Your task to perform on an android device: Go to privacy settings Image 0: 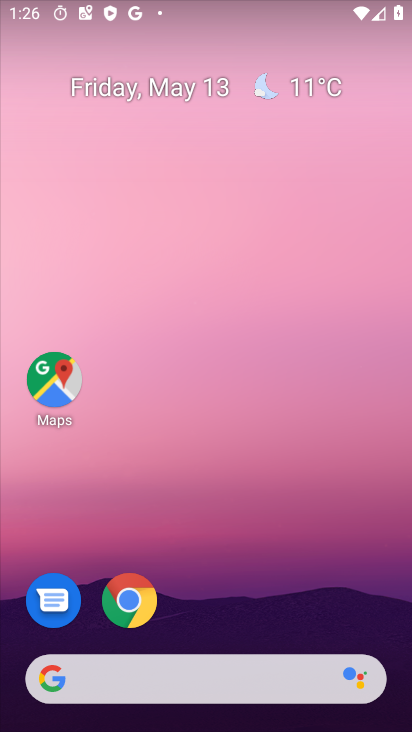
Step 0: click (343, 217)
Your task to perform on an android device: Go to privacy settings Image 1: 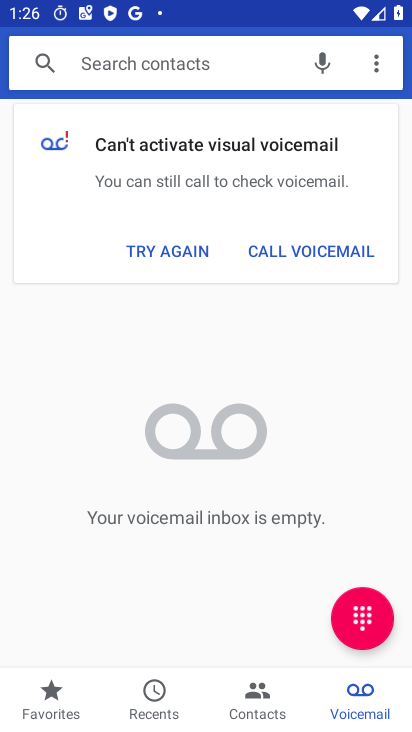
Step 1: press home button
Your task to perform on an android device: Go to privacy settings Image 2: 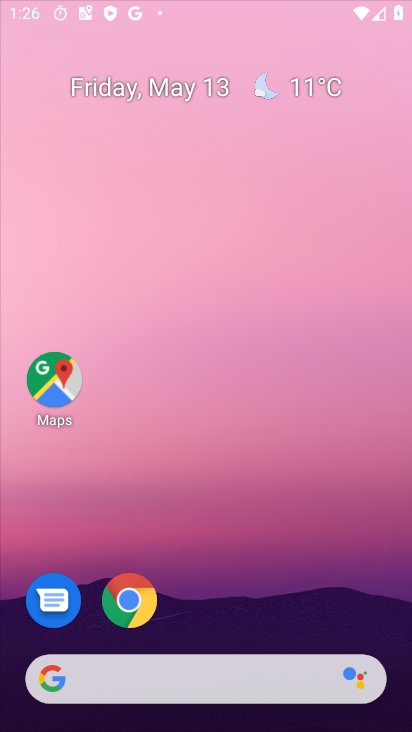
Step 2: drag from (235, 534) to (354, 1)
Your task to perform on an android device: Go to privacy settings Image 3: 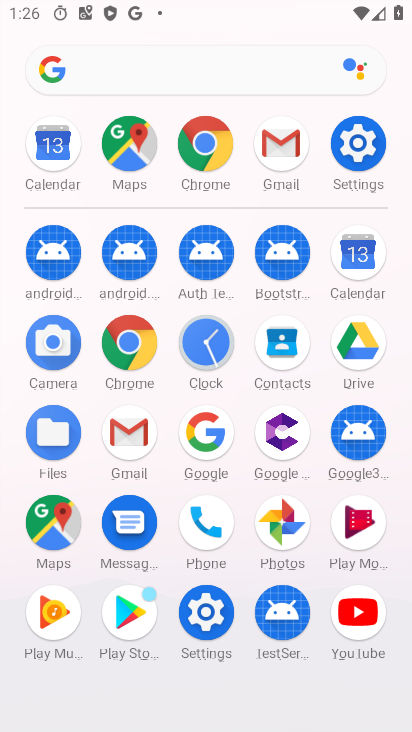
Step 3: click (352, 154)
Your task to perform on an android device: Go to privacy settings Image 4: 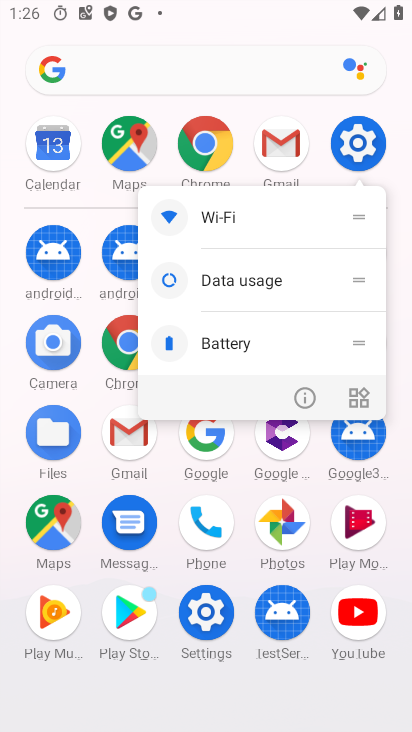
Step 4: click (305, 387)
Your task to perform on an android device: Go to privacy settings Image 5: 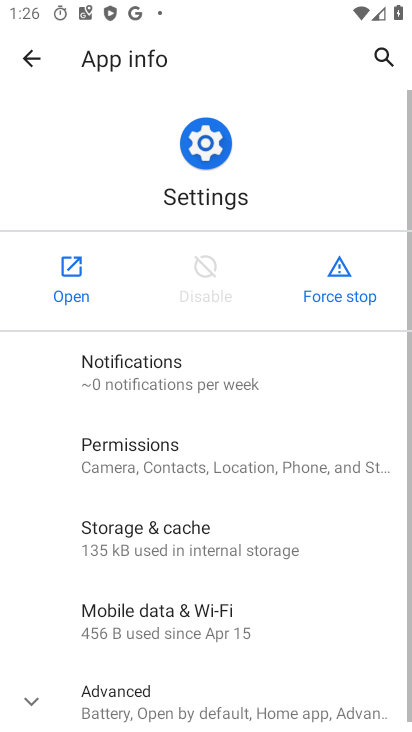
Step 5: click (65, 270)
Your task to perform on an android device: Go to privacy settings Image 6: 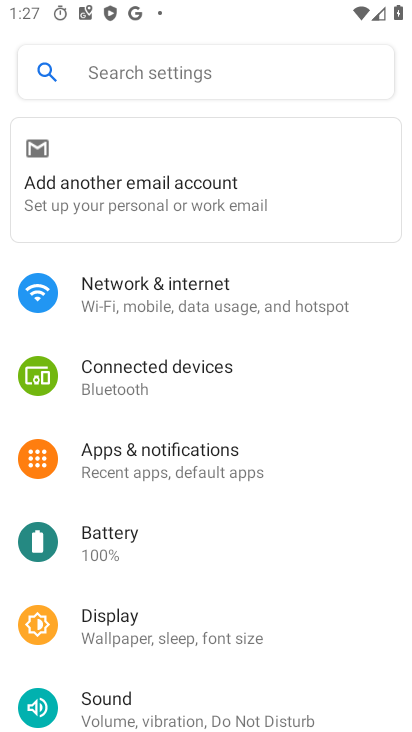
Step 6: drag from (203, 600) to (306, 176)
Your task to perform on an android device: Go to privacy settings Image 7: 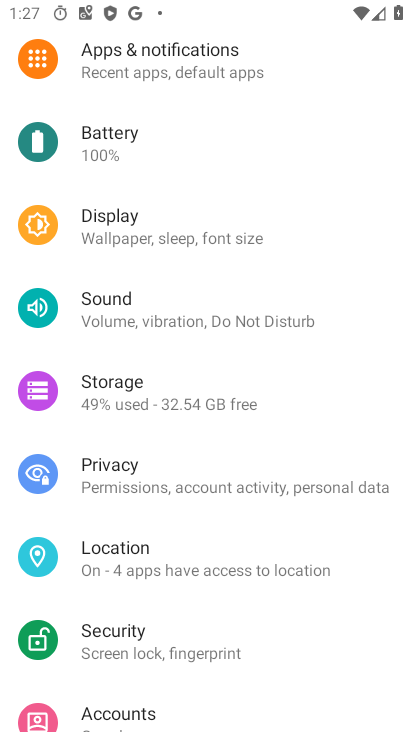
Step 7: click (116, 471)
Your task to perform on an android device: Go to privacy settings Image 8: 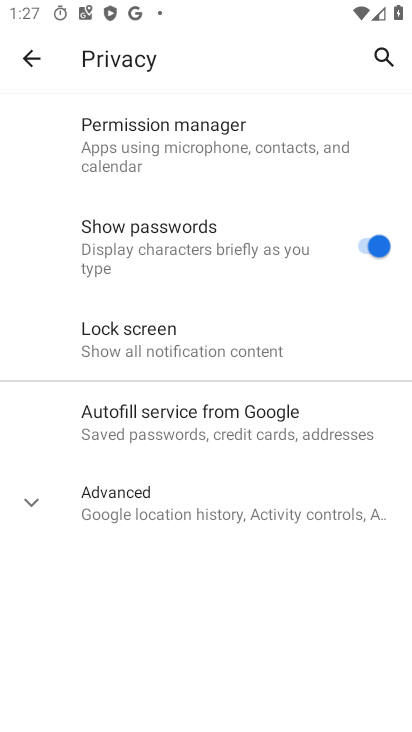
Step 8: drag from (227, 583) to (352, 147)
Your task to perform on an android device: Go to privacy settings Image 9: 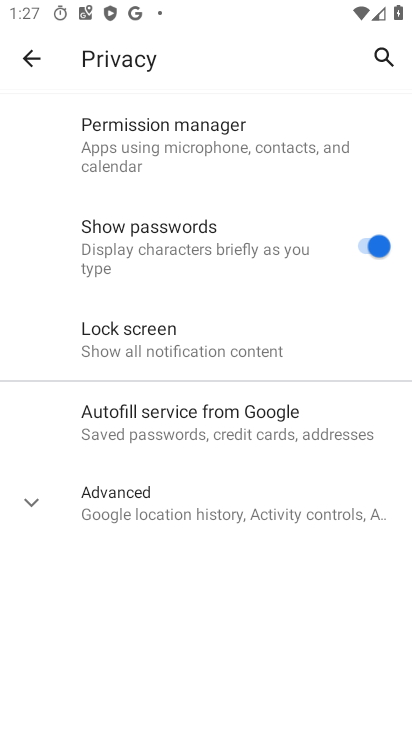
Step 9: click (187, 507)
Your task to perform on an android device: Go to privacy settings Image 10: 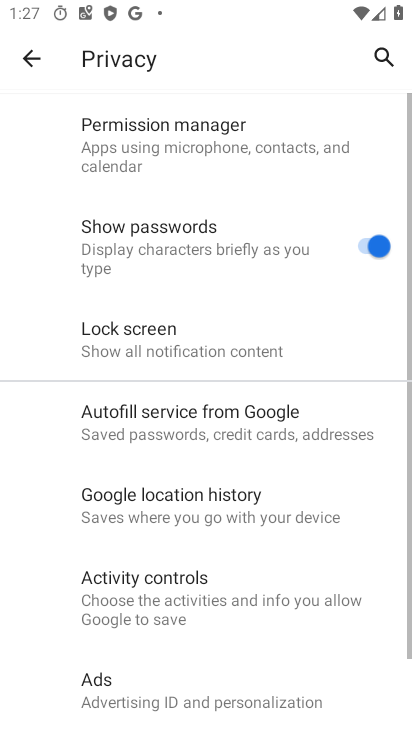
Step 10: task complete